Your task to perform on an android device: What's on my calendar tomorrow? Image 0: 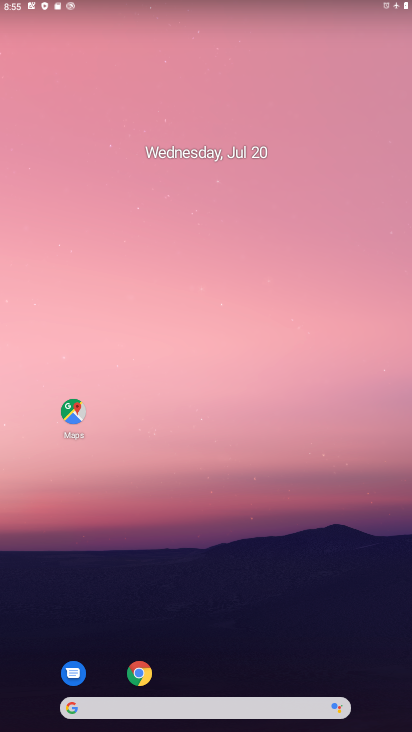
Step 0: drag from (223, 725) to (181, 289)
Your task to perform on an android device: What's on my calendar tomorrow? Image 1: 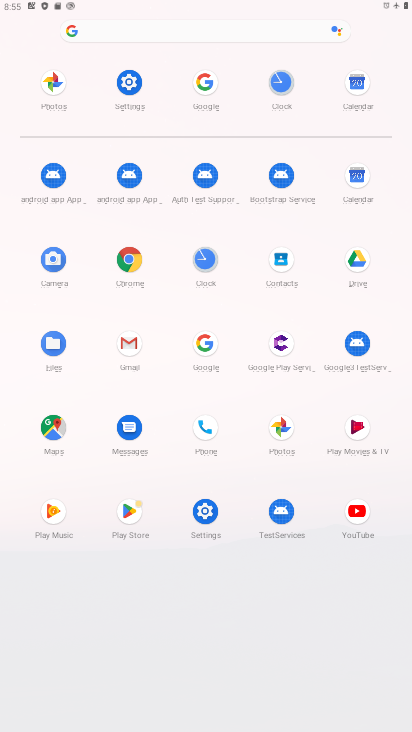
Step 1: click (354, 178)
Your task to perform on an android device: What's on my calendar tomorrow? Image 2: 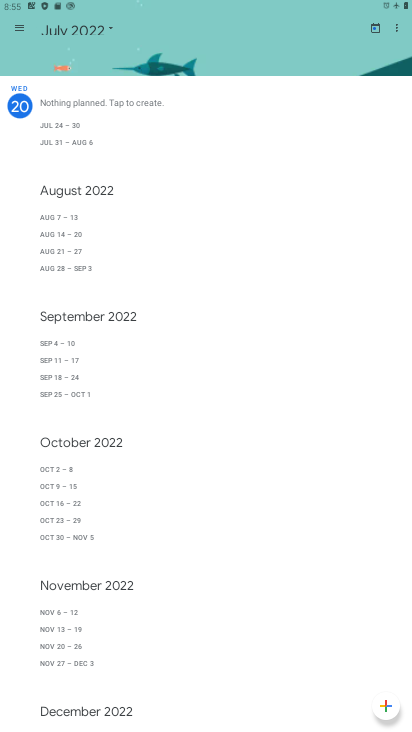
Step 2: click (111, 24)
Your task to perform on an android device: What's on my calendar tomorrow? Image 3: 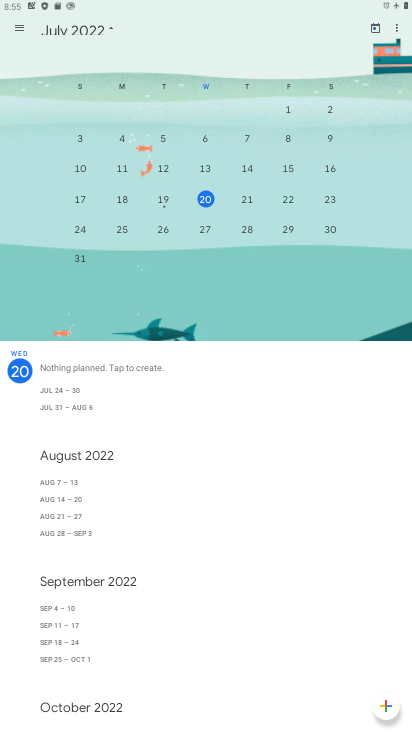
Step 3: click (245, 193)
Your task to perform on an android device: What's on my calendar tomorrow? Image 4: 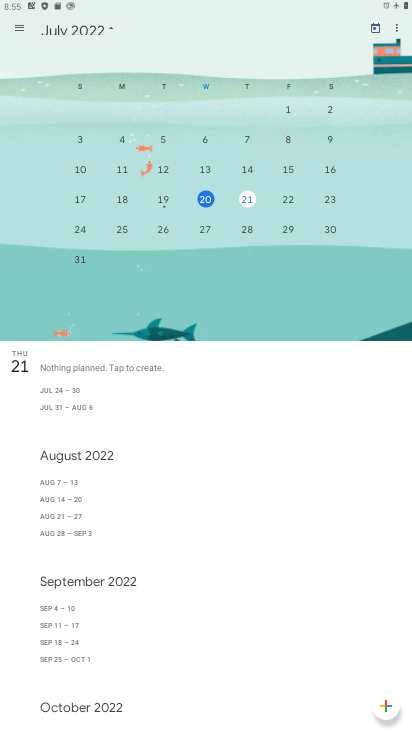
Step 4: click (248, 199)
Your task to perform on an android device: What's on my calendar tomorrow? Image 5: 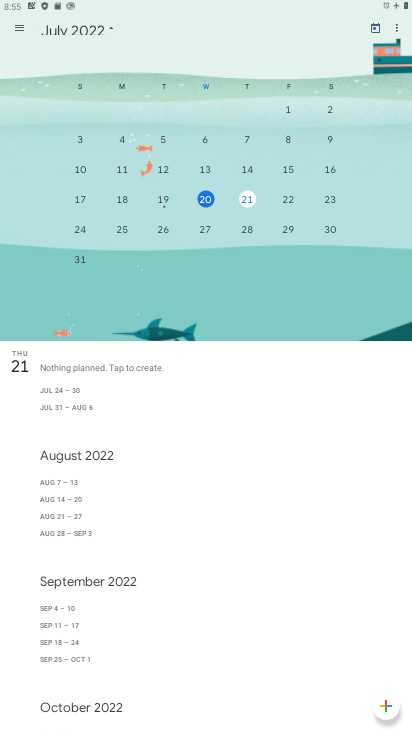
Step 5: click (244, 192)
Your task to perform on an android device: What's on my calendar tomorrow? Image 6: 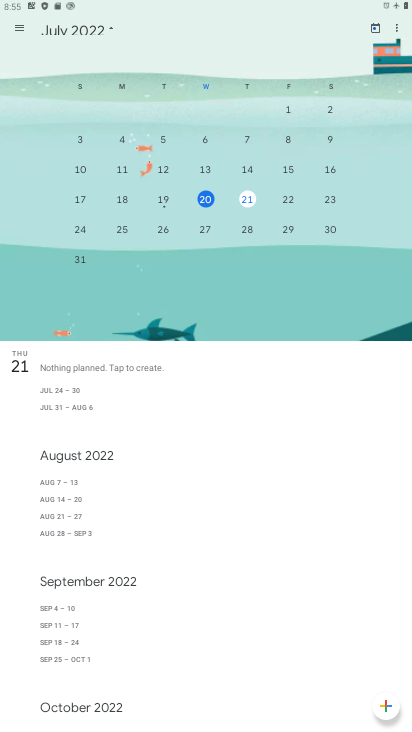
Step 6: task complete